Your task to perform on an android device: Go to display settings Image 0: 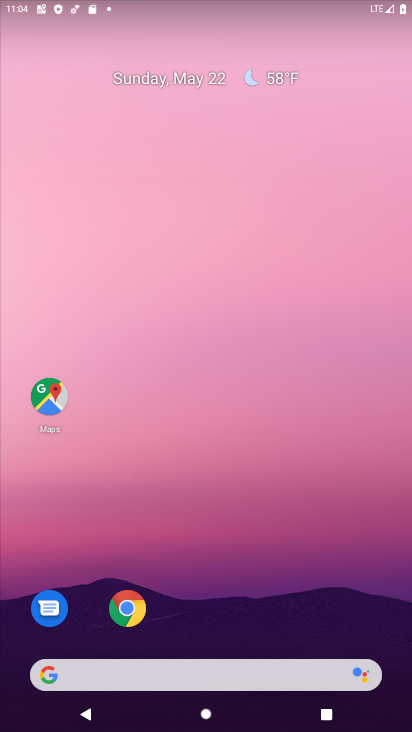
Step 0: drag from (230, 725) to (231, 102)
Your task to perform on an android device: Go to display settings Image 1: 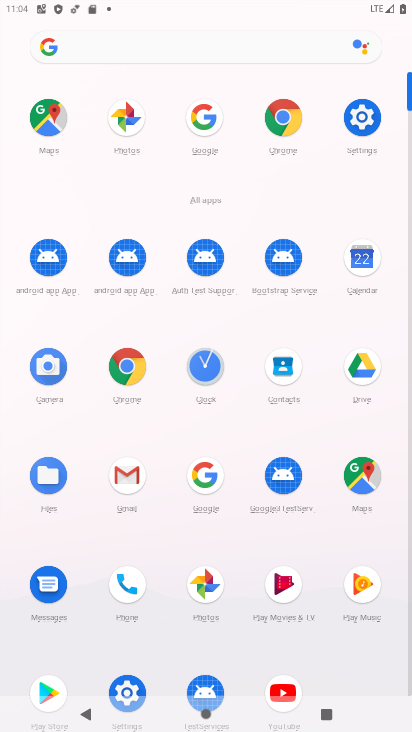
Step 1: click (359, 125)
Your task to perform on an android device: Go to display settings Image 2: 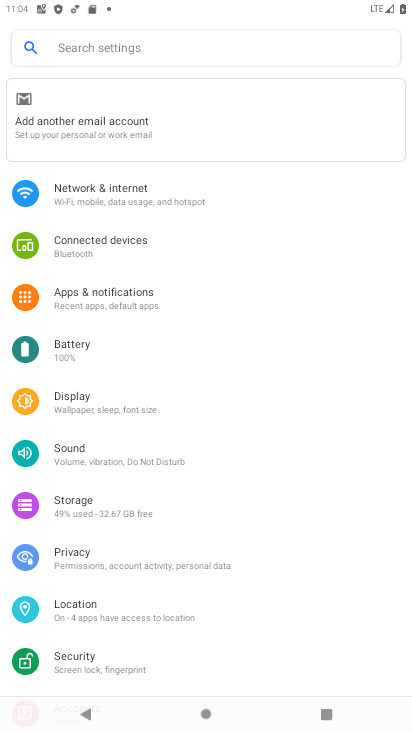
Step 2: click (61, 403)
Your task to perform on an android device: Go to display settings Image 3: 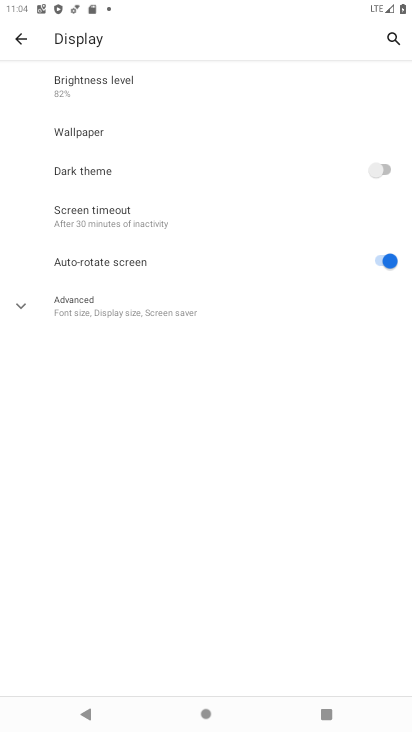
Step 3: task complete